Your task to perform on an android device: set the timer Image 0: 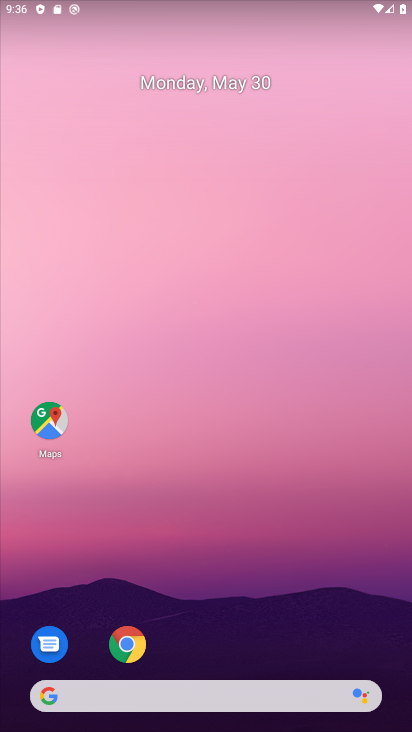
Step 0: drag from (225, 690) to (313, 88)
Your task to perform on an android device: set the timer Image 1: 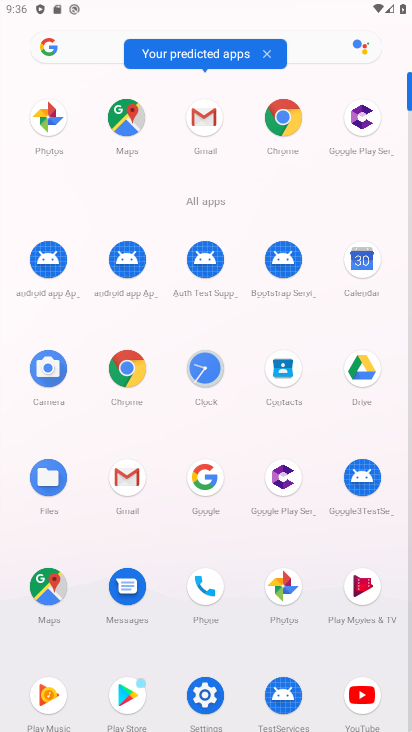
Step 1: click (207, 370)
Your task to perform on an android device: set the timer Image 2: 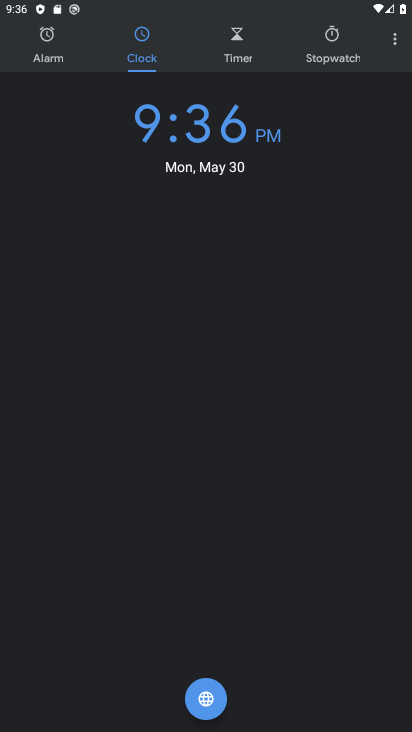
Step 2: click (247, 61)
Your task to perform on an android device: set the timer Image 3: 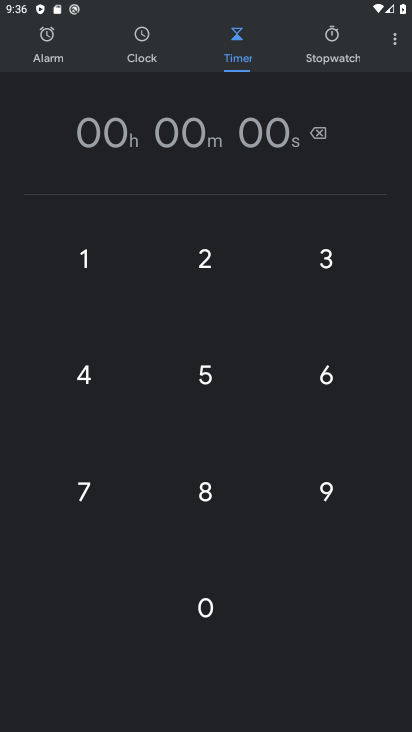
Step 3: click (109, 258)
Your task to perform on an android device: set the timer Image 4: 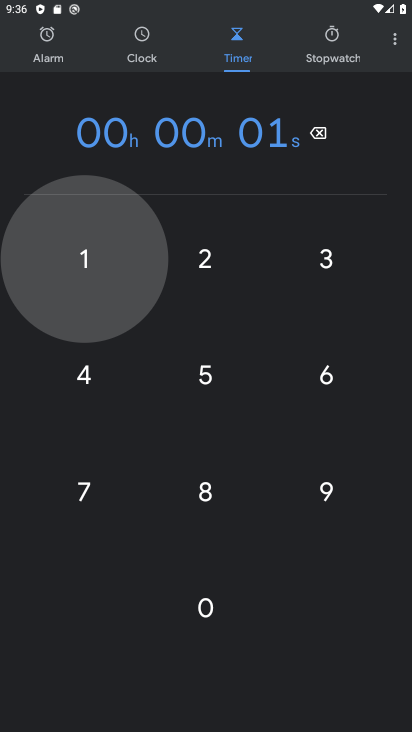
Step 4: click (217, 364)
Your task to perform on an android device: set the timer Image 5: 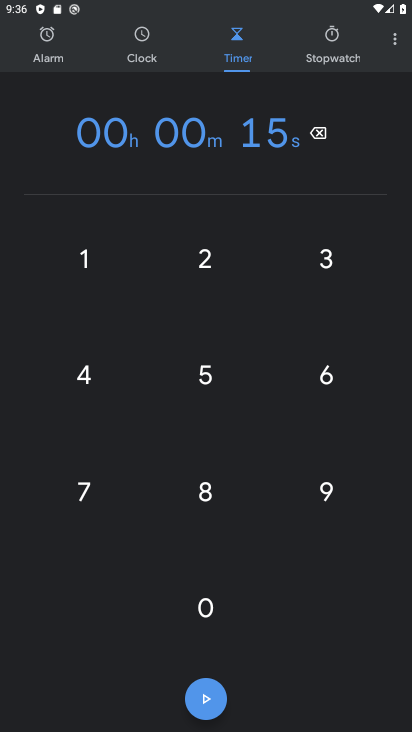
Step 5: click (72, 366)
Your task to perform on an android device: set the timer Image 6: 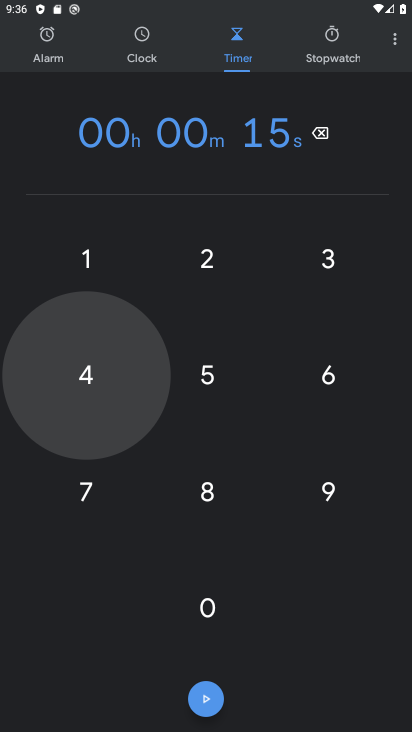
Step 6: click (183, 377)
Your task to perform on an android device: set the timer Image 7: 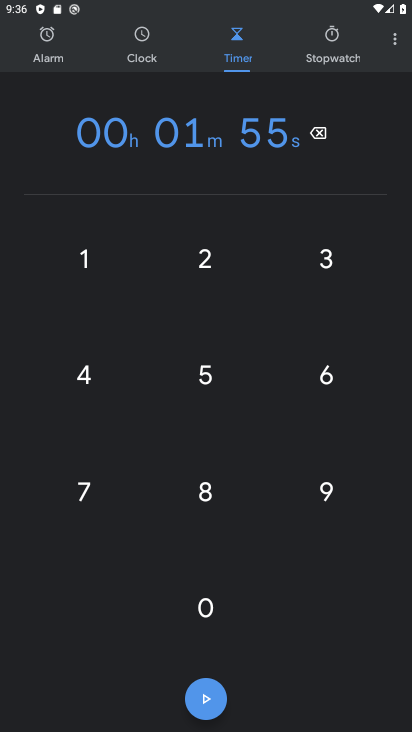
Step 7: click (76, 383)
Your task to perform on an android device: set the timer Image 8: 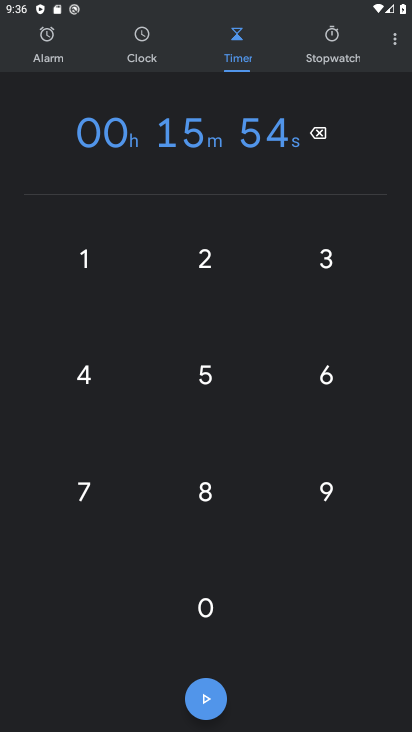
Step 8: click (193, 708)
Your task to perform on an android device: set the timer Image 9: 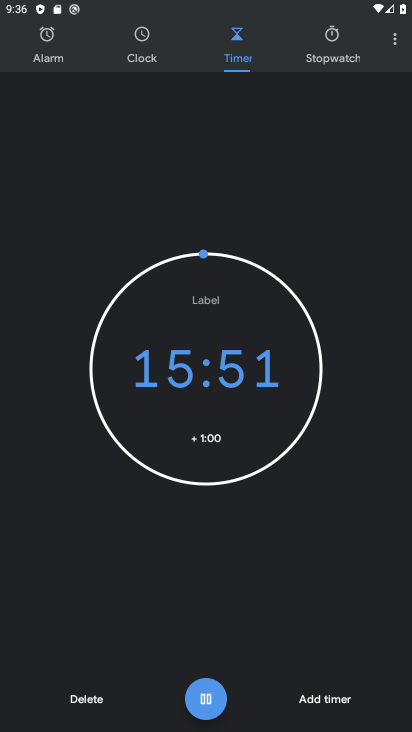
Step 9: task complete